Your task to perform on an android device: change the upload size in google photos Image 0: 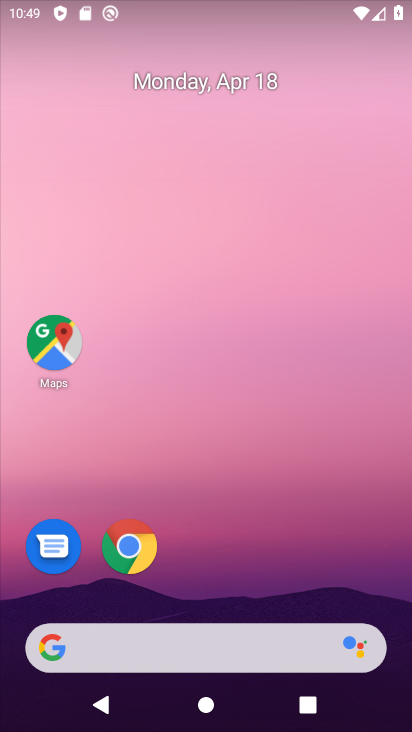
Step 0: drag from (378, 580) to (368, 84)
Your task to perform on an android device: change the upload size in google photos Image 1: 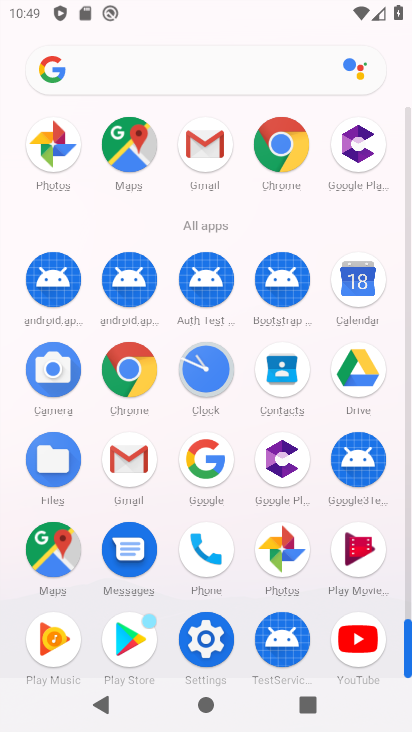
Step 1: click (293, 558)
Your task to perform on an android device: change the upload size in google photos Image 2: 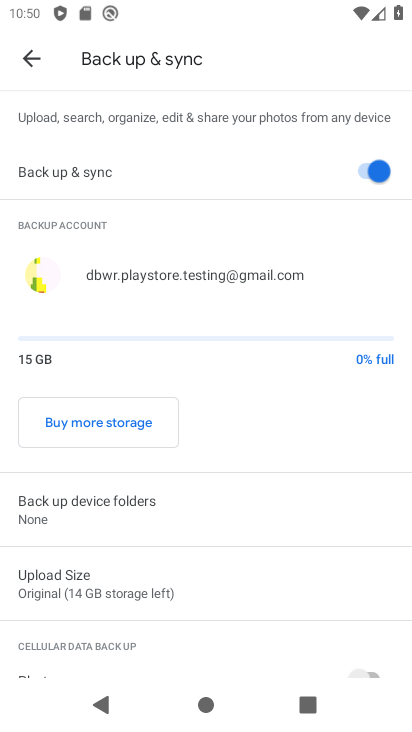
Step 2: drag from (289, 561) to (315, 276)
Your task to perform on an android device: change the upload size in google photos Image 3: 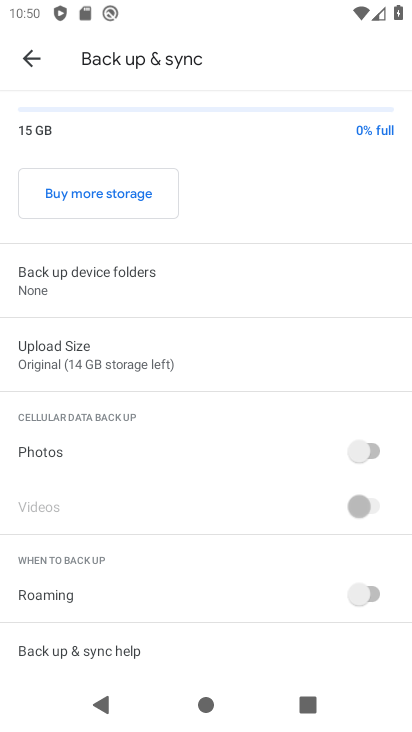
Step 3: click (137, 349)
Your task to perform on an android device: change the upload size in google photos Image 4: 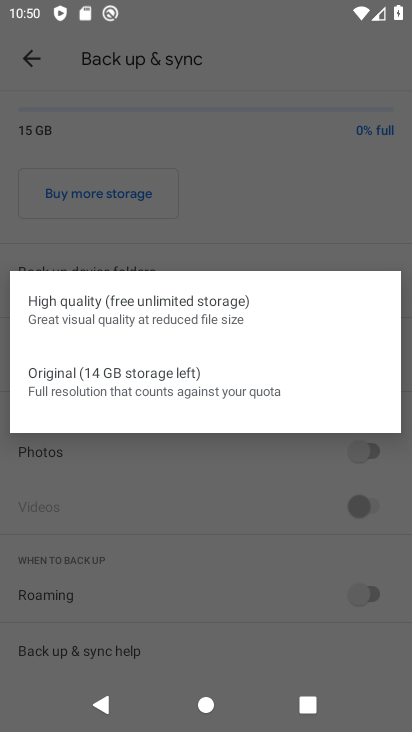
Step 4: click (172, 315)
Your task to perform on an android device: change the upload size in google photos Image 5: 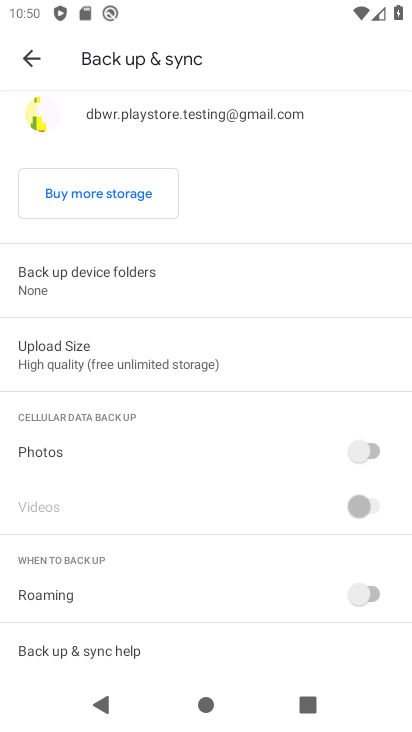
Step 5: task complete